Your task to perform on an android device: turn on priority inbox in the gmail app Image 0: 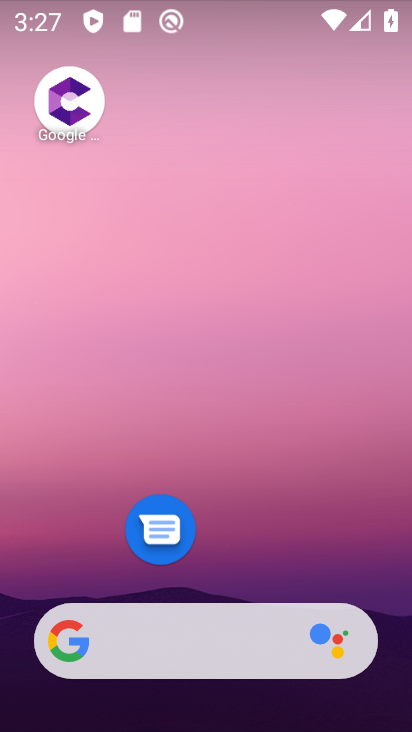
Step 0: drag from (257, 604) to (283, 7)
Your task to perform on an android device: turn on priority inbox in the gmail app Image 1: 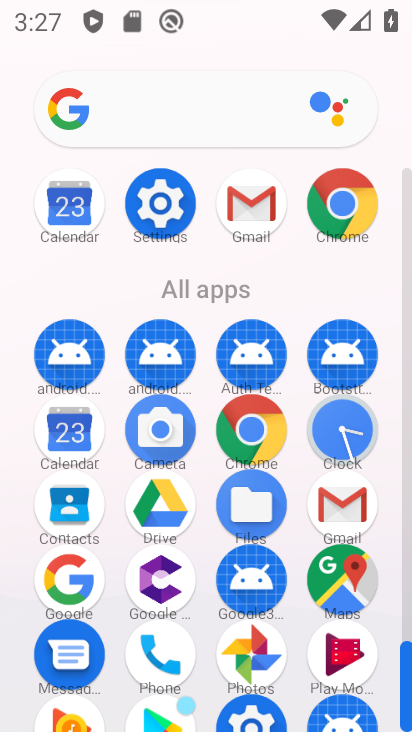
Step 1: click (343, 498)
Your task to perform on an android device: turn on priority inbox in the gmail app Image 2: 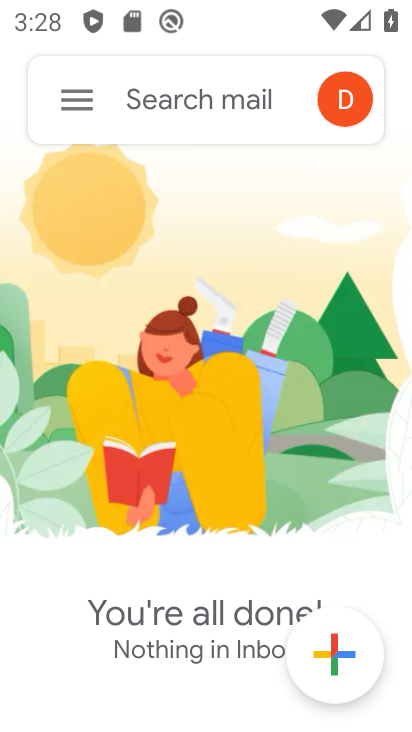
Step 2: click (69, 104)
Your task to perform on an android device: turn on priority inbox in the gmail app Image 3: 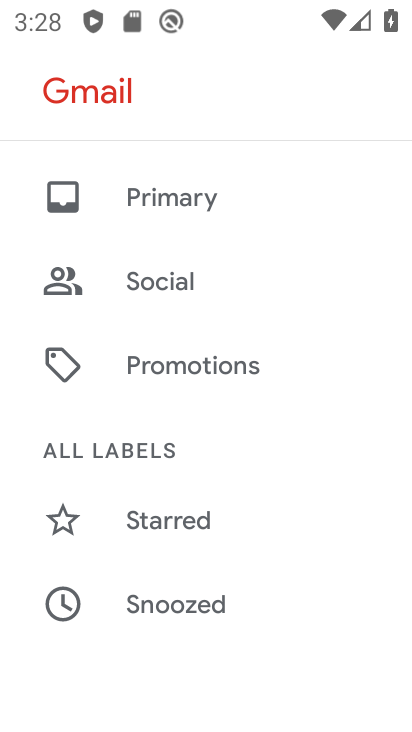
Step 3: drag from (138, 535) to (176, 100)
Your task to perform on an android device: turn on priority inbox in the gmail app Image 4: 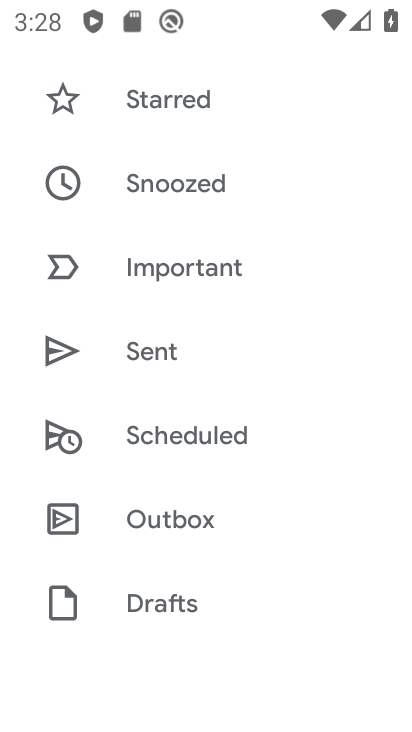
Step 4: drag from (156, 532) to (233, 138)
Your task to perform on an android device: turn on priority inbox in the gmail app Image 5: 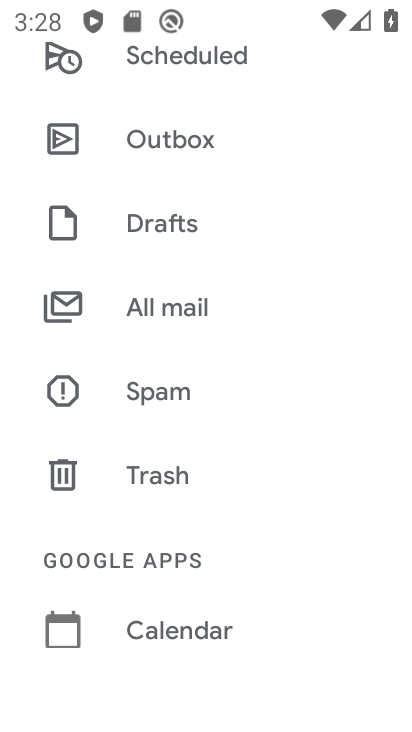
Step 5: drag from (148, 531) to (289, 173)
Your task to perform on an android device: turn on priority inbox in the gmail app Image 6: 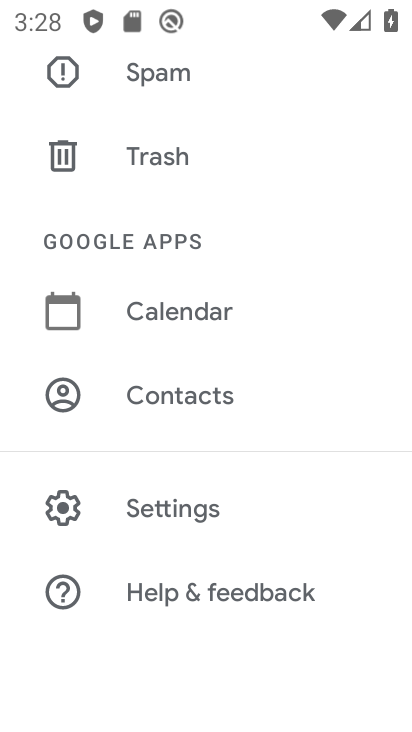
Step 6: click (213, 521)
Your task to perform on an android device: turn on priority inbox in the gmail app Image 7: 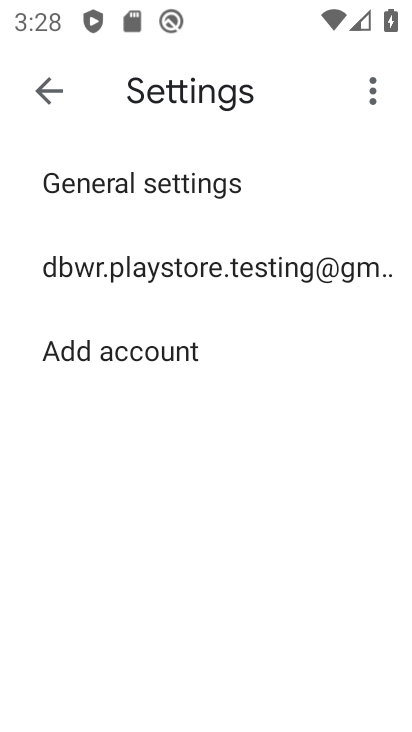
Step 7: click (194, 285)
Your task to perform on an android device: turn on priority inbox in the gmail app Image 8: 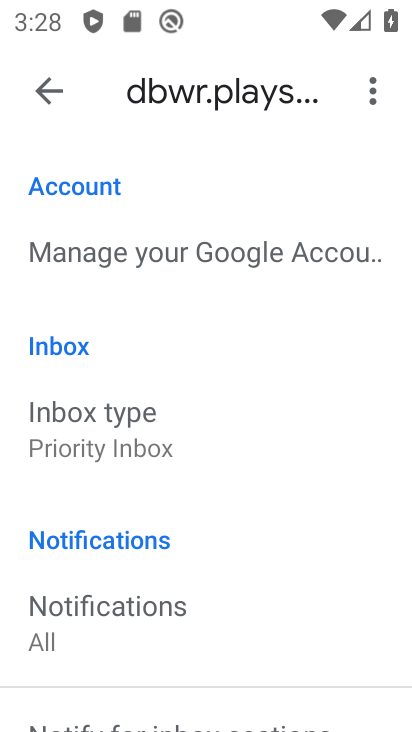
Step 8: click (166, 431)
Your task to perform on an android device: turn on priority inbox in the gmail app Image 9: 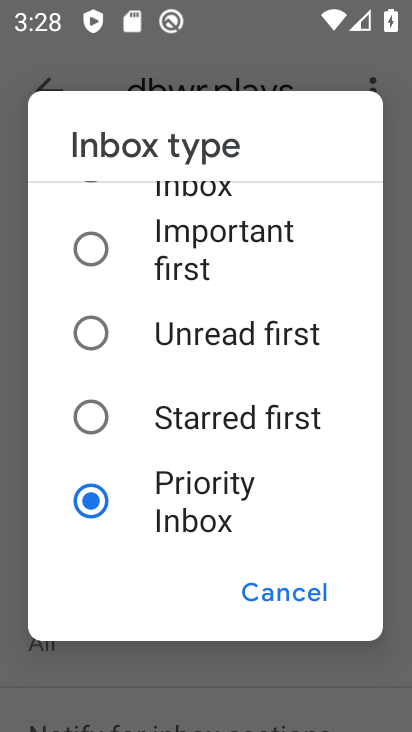
Step 9: task complete